Your task to perform on an android device: turn on wifi Image 0: 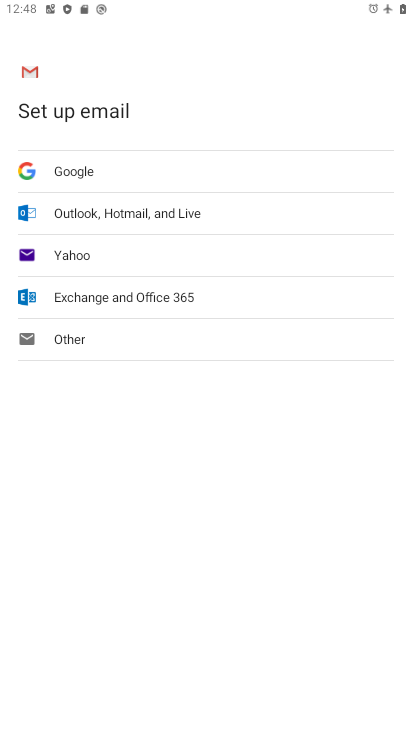
Step 0: press home button
Your task to perform on an android device: turn on wifi Image 1: 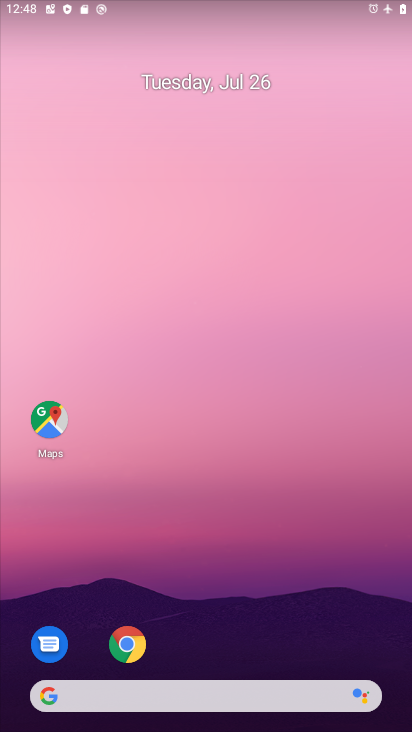
Step 1: drag from (206, 660) to (305, 59)
Your task to perform on an android device: turn on wifi Image 2: 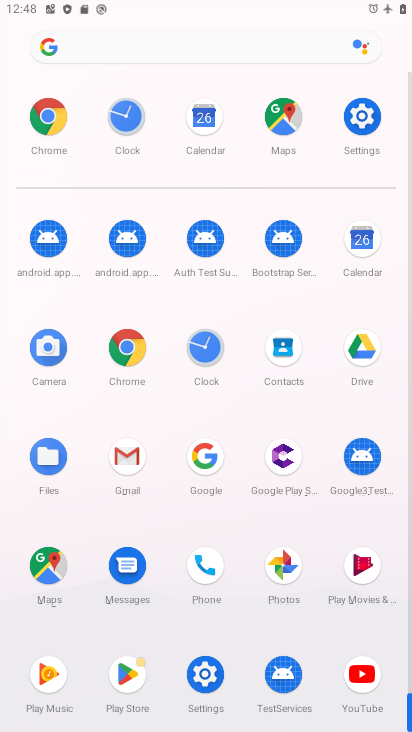
Step 2: click (360, 132)
Your task to perform on an android device: turn on wifi Image 3: 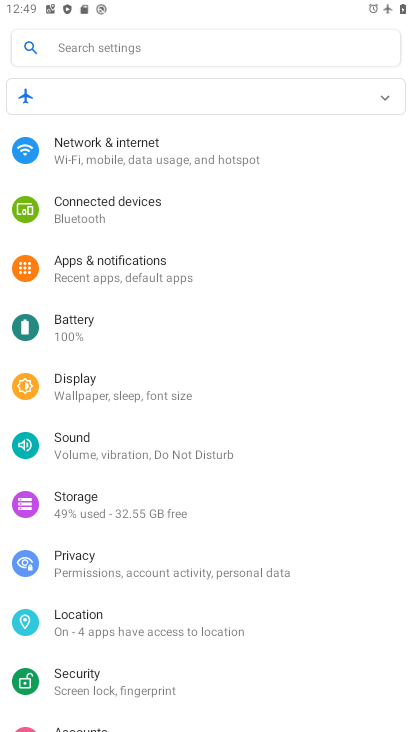
Step 3: click (169, 159)
Your task to perform on an android device: turn on wifi Image 4: 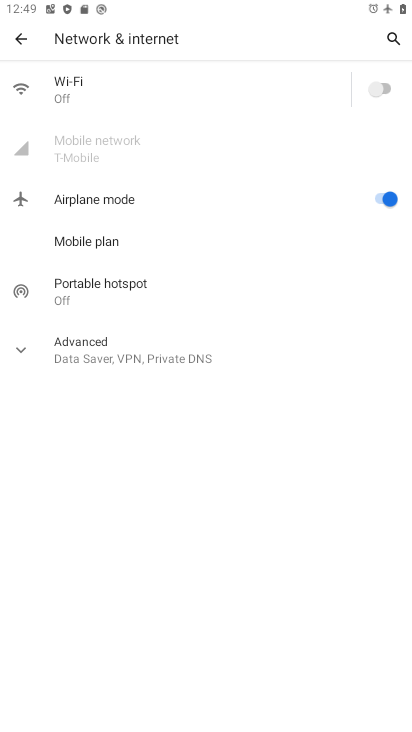
Step 4: click (390, 92)
Your task to perform on an android device: turn on wifi Image 5: 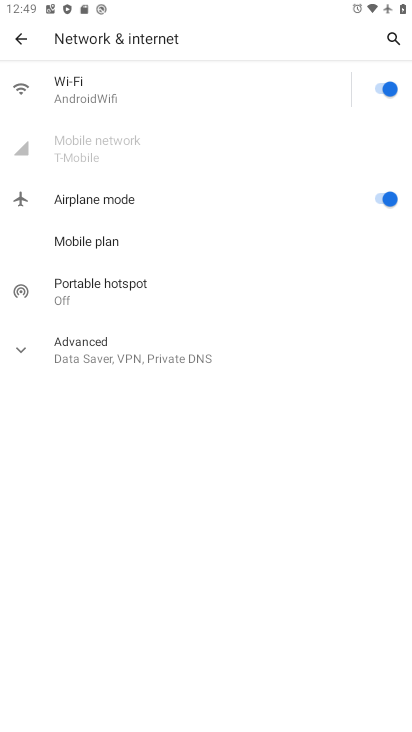
Step 5: task complete